Your task to perform on an android device: change the clock display to analog Image 0: 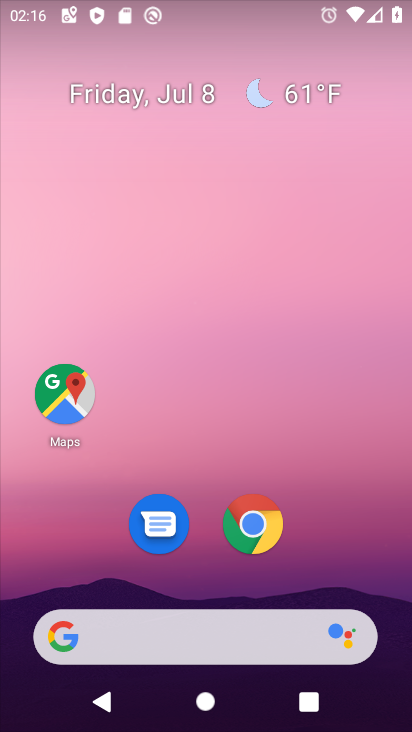
Step 0: drag from (328, 569) to (349, 45)
Your task to perform on an android device: change the clock display to analog Image 1: 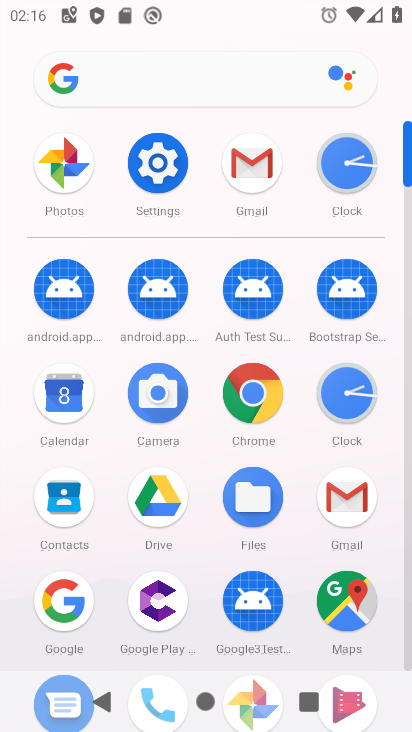
Step 1: click (354, 377)
Your task to perform on an android device: change the clock display to analog Image 2: 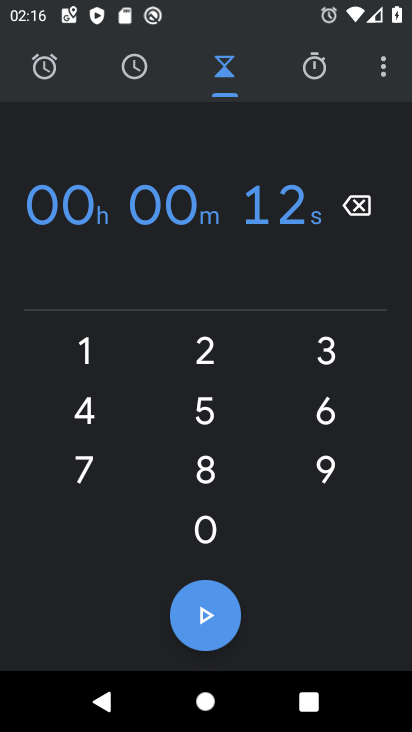
Step 2: click (122, 66)
Your task to perform on an android device: change the clock display to analog Image 3: 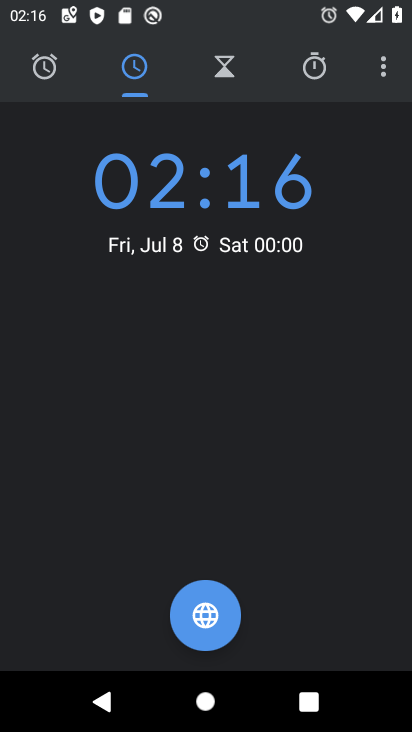
Step 3: click (389, 60)
Your task to perform on an android device: change the clock display to analog Image 4: 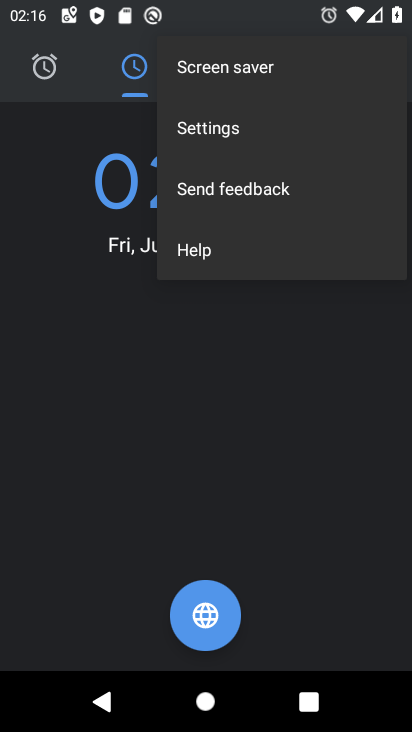
Step 4: click (289, 136)
Your task to perform on an android device: change the clock display to analog Image 5: 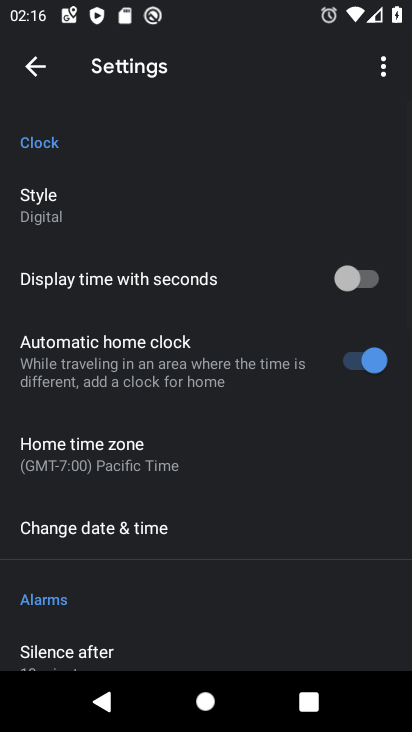
Step 5: click (57, 207)
Your task to perform on an android device: change the clock display to analog Image 6: 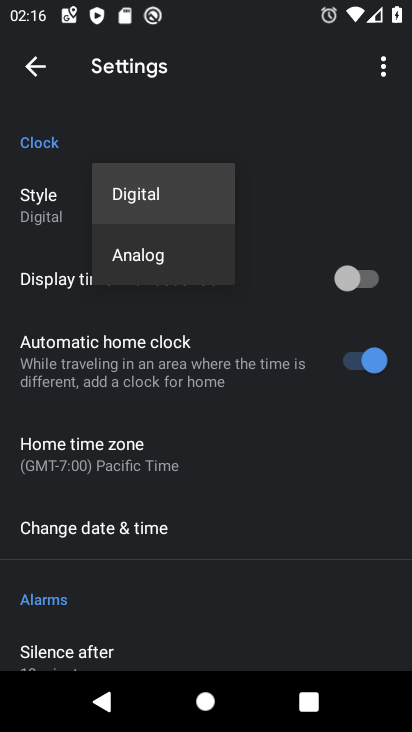
Step 6: click (154, 251)
Your task to perform on an android device: change the clock display to analog Image 7: 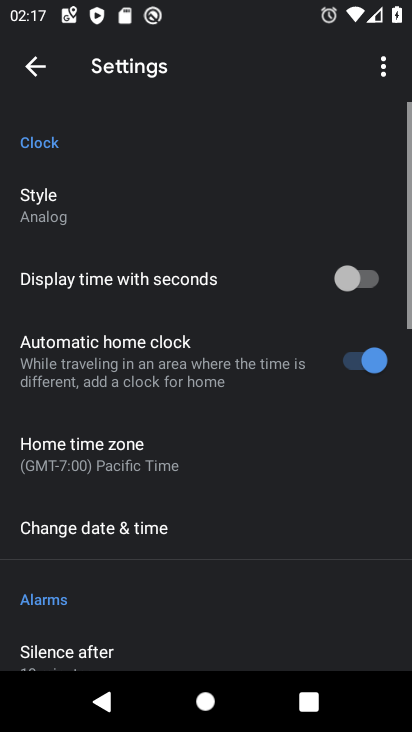
Step 7: click (42, 61)
Your task to perform on an android device: change the clock display to analog Image 8: 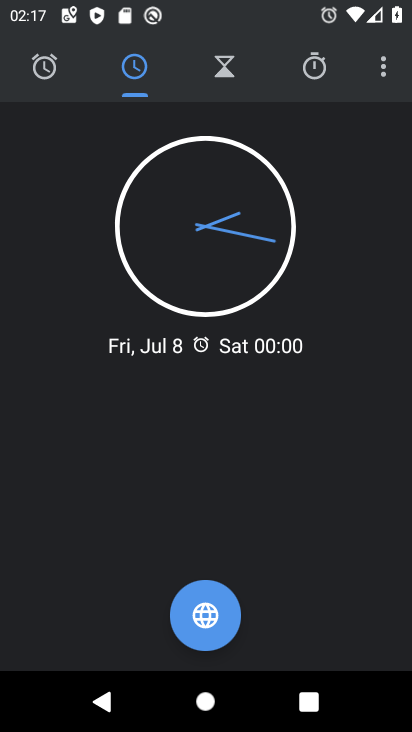
Step 8: task complete